Your task to perform on an android device: Go to Wikipedia Image 0: 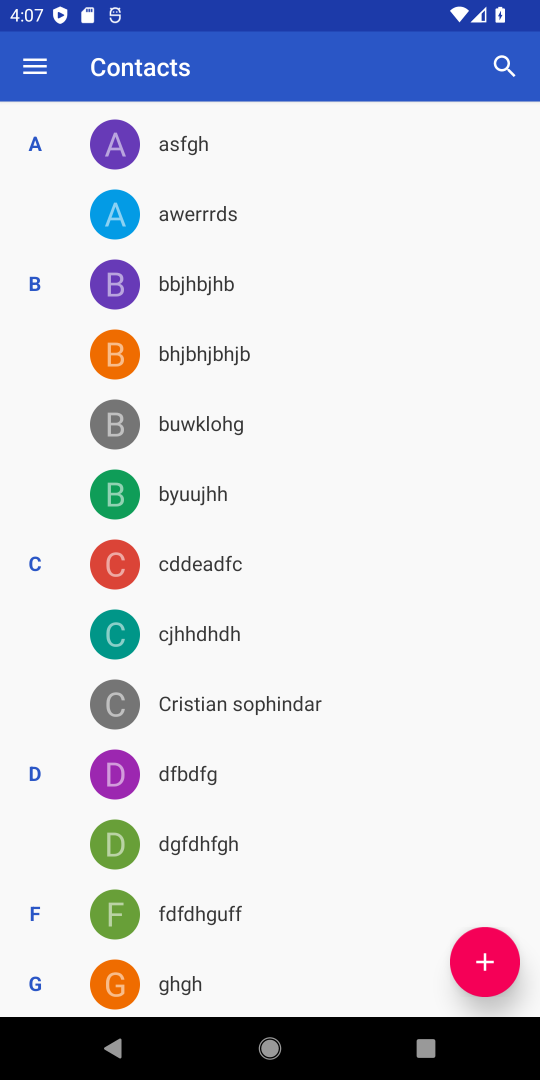
Step 0: press home button
Your task to perform on an android device: Go to Wikipedia Image 1: 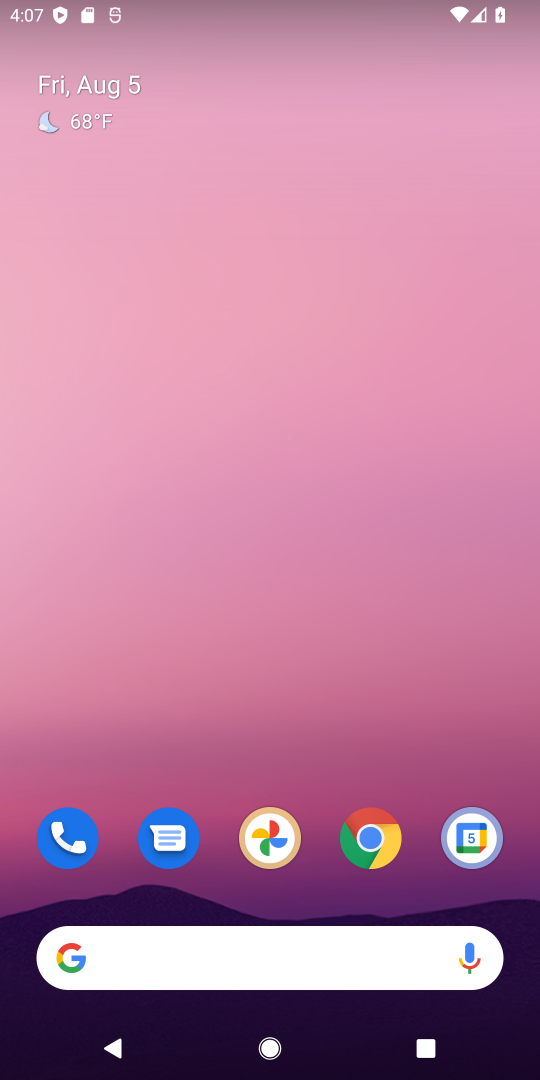
Step 1: drag from (259, 861) to (243, 282)
Your task to perform on an android device: Go to Wikipedia Image 2: 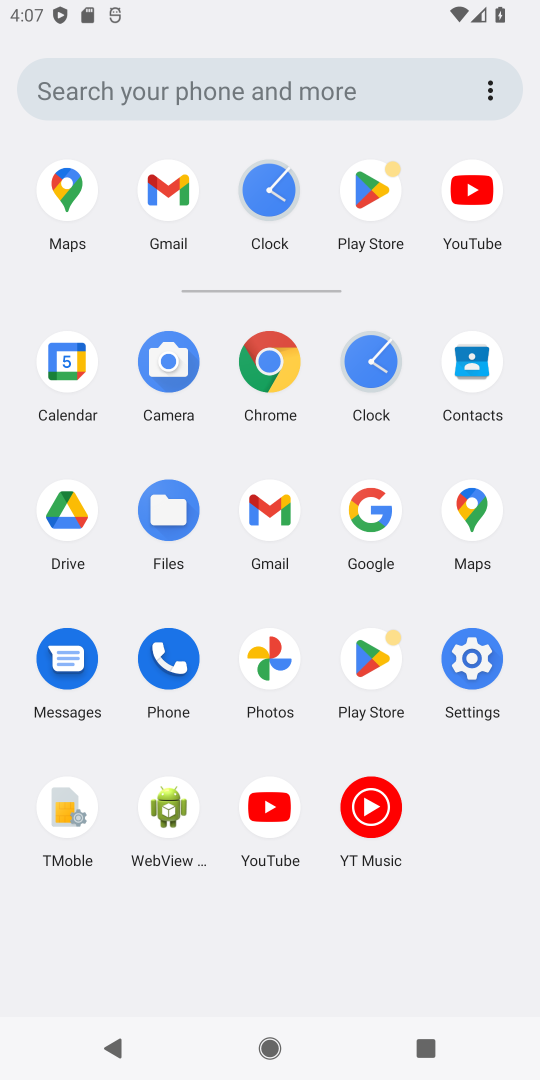
Step 2: click (283, 357)
Your task to perform on an android device: Go to Wikipedia Image 3: 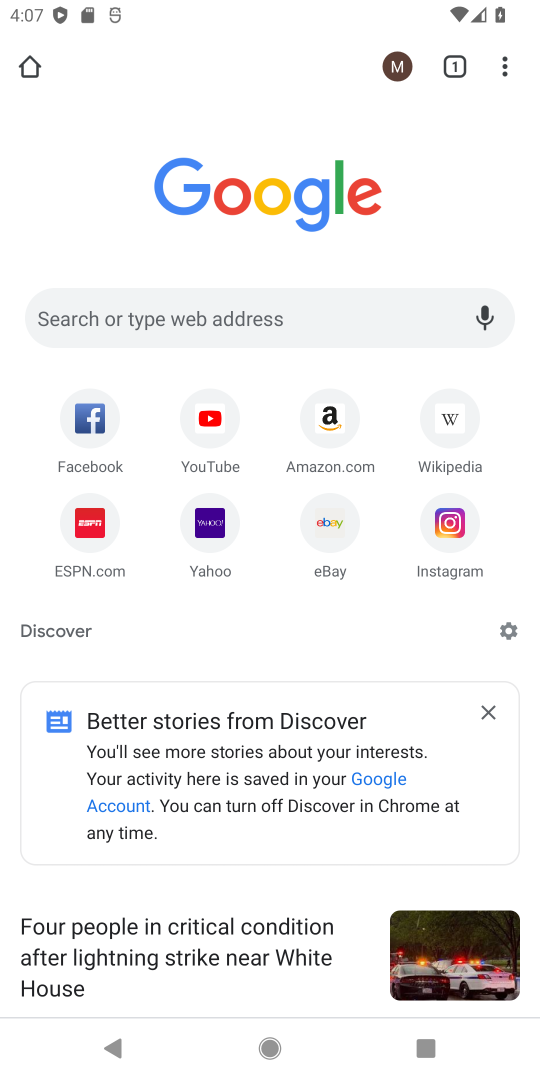
Step 3: click (431, 404)
Your task to perform on an android device: Go to Wikipedia Image 4: 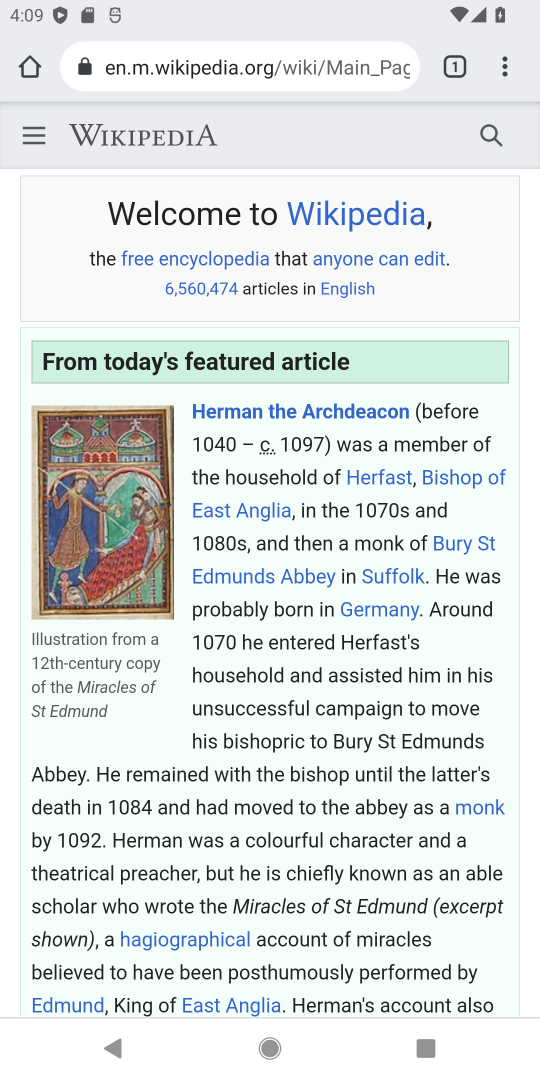
Step 4: task complete